Your task to perform on an android device: Open Chrome and go to settings Image 0: 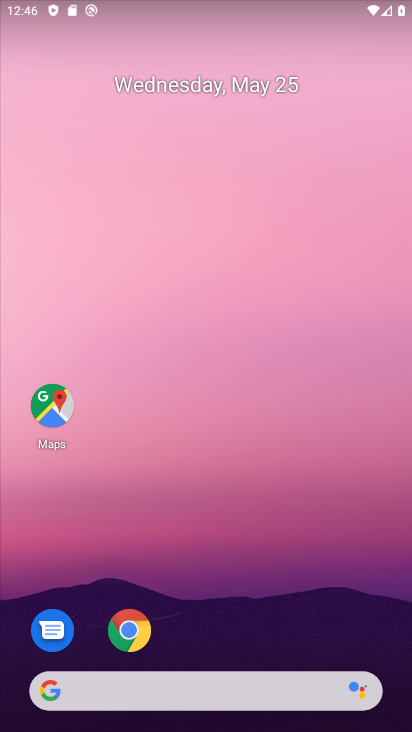
Step 0: click (128, 629)
Your task to perform on an android device: Open Chrome and go to settings Image 1: 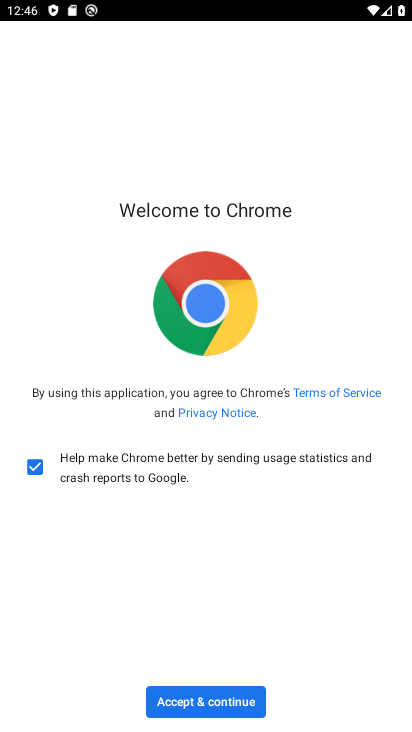
Step 1: click (215, 692)
Your task to perform on an android device: Open Chrome and go to settings Image 2: 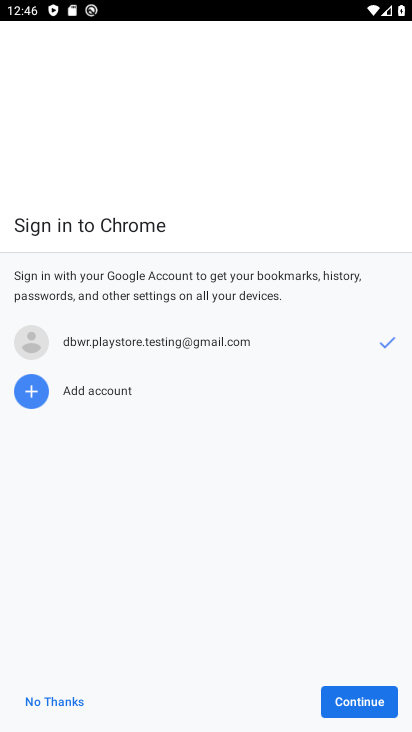
Step 2: click (357, 707)
Your task to perform on an android device: Open Chrome and go to settings Image 3: 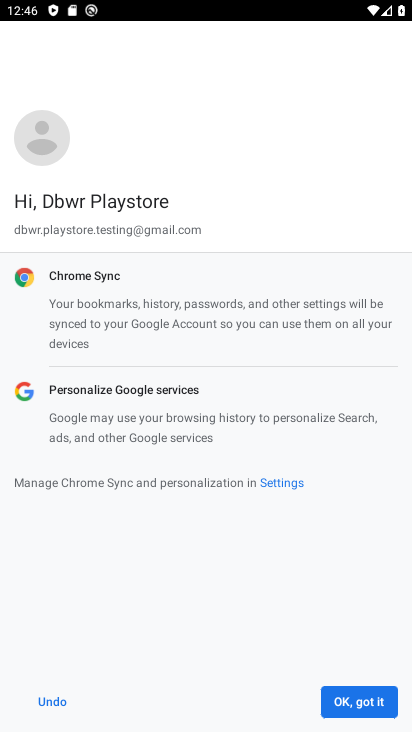
Step 3: click (357, 707)
Your task to perform on an android device: Open Chrome and go to settings Image 4: 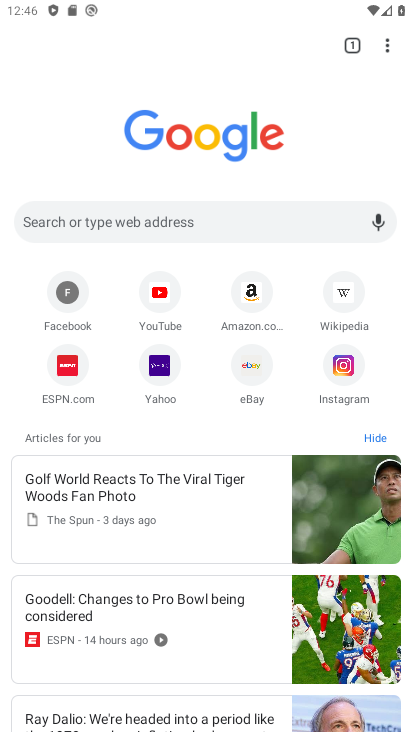
Step 4: click (391, 34)
Your task to perform on an android device: Open Chrome and go to settings Image 5: 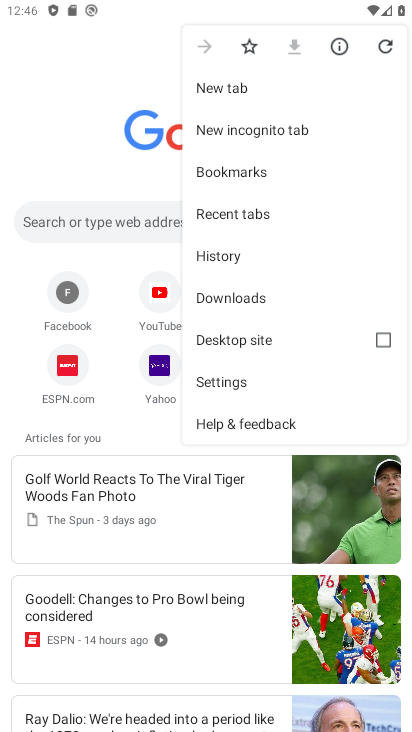
Step 5: click (250, 383)
Your task to perform on an android device: Open Chrome and go to settings Image 6: 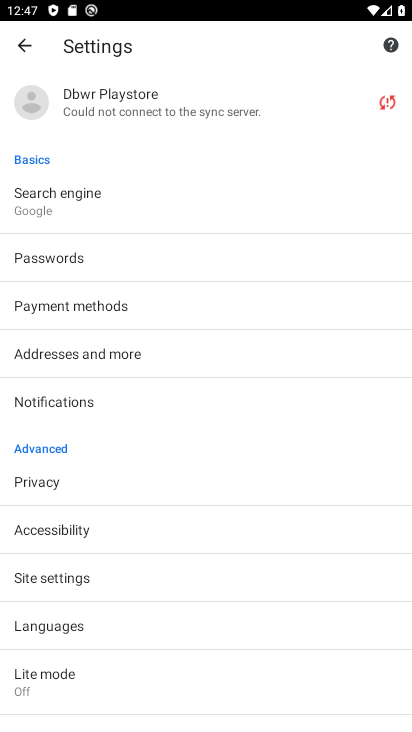
Step 6: task complete